Your task to perform on an android device: turn off wifi Image 0: 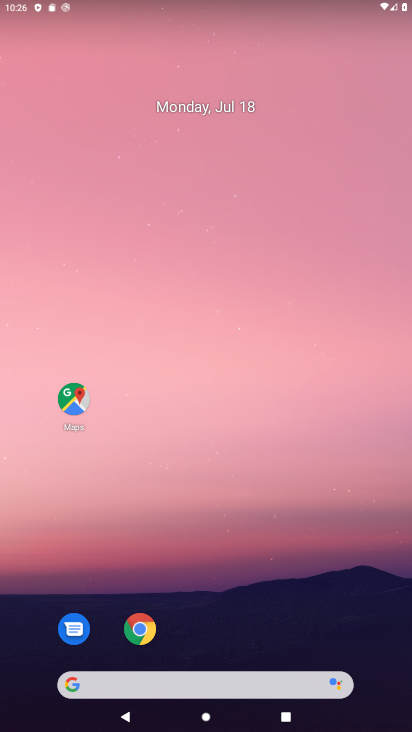
Step 0: drag from (241, 6) to (216, 343)
Your task to perform on an android device: turn off wifi Image 1: 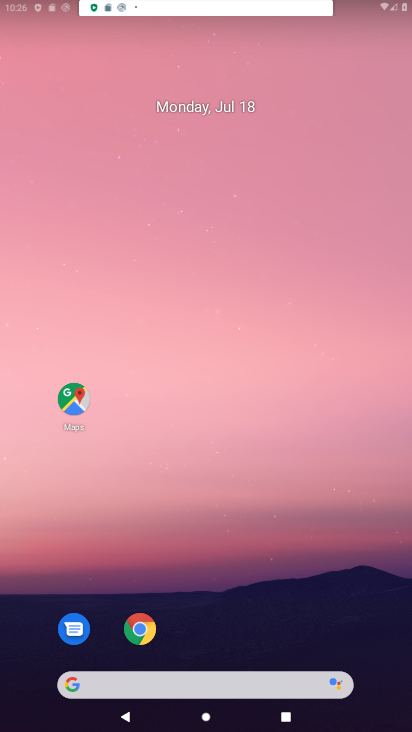
Step 1: click (216, 343)
Your task to perform on an android device: turn off wifi Image 2: 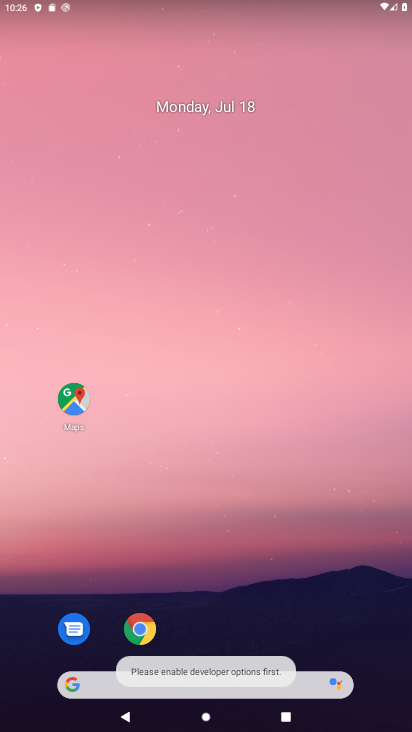
Step 2: drag from (216, 7) to (172, 519)
Your task to perform on an android device: turn off wifi Image 3: 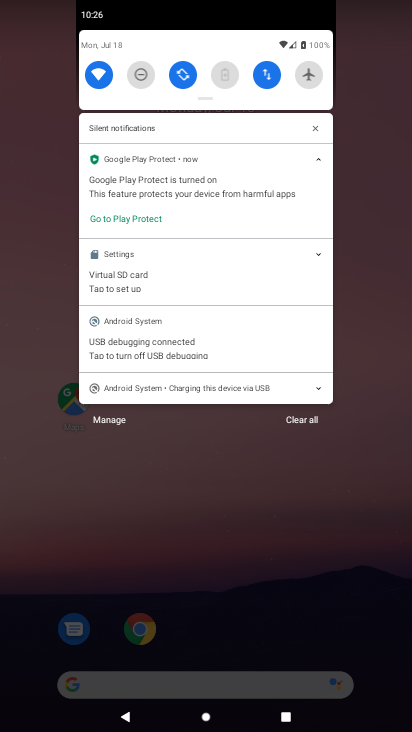
Step 3: click (99, 81)
Your task to perform on an android device: turn off wifi Image 4: 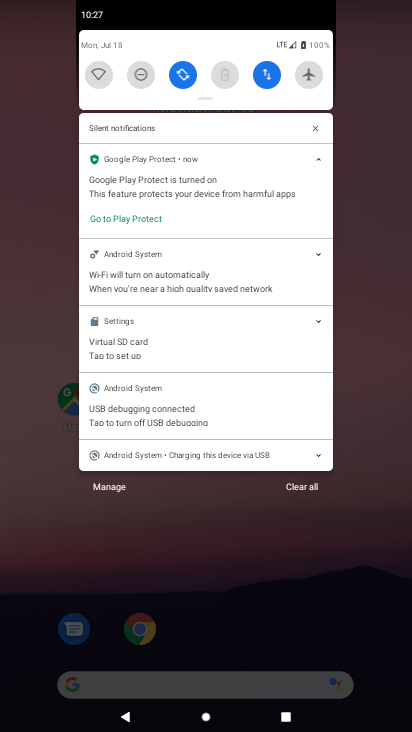
Step 4: task complete